Your task to perform on an android device: turn on notifications settings in the gmail app Image 0: 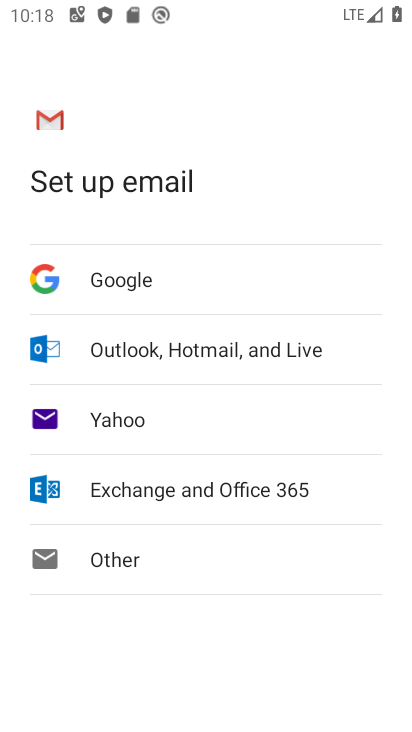
Step 0: press home button
Your task to perform on an android device: turn on notifications settings in the gmail app Image 1: 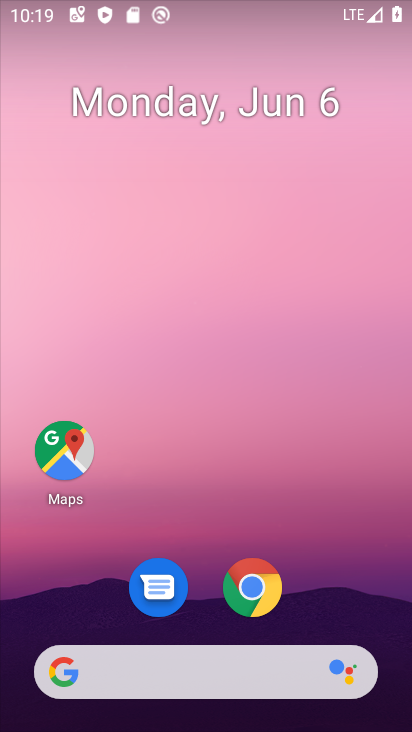
Step 1: drag from (324, 719) to (288, 73)
Your task to perform on an android device: turn on notifications settings in the gmail app Image 2: 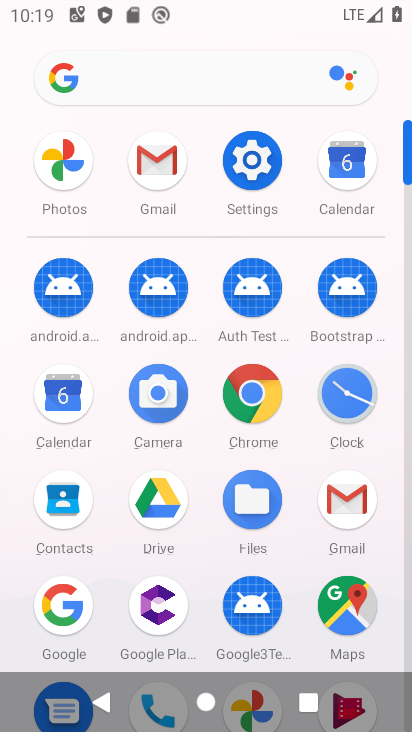
Step 2: click (331, 505)
Your task to perform on an android device: turn on notifications settings in the gmail app Image 3: 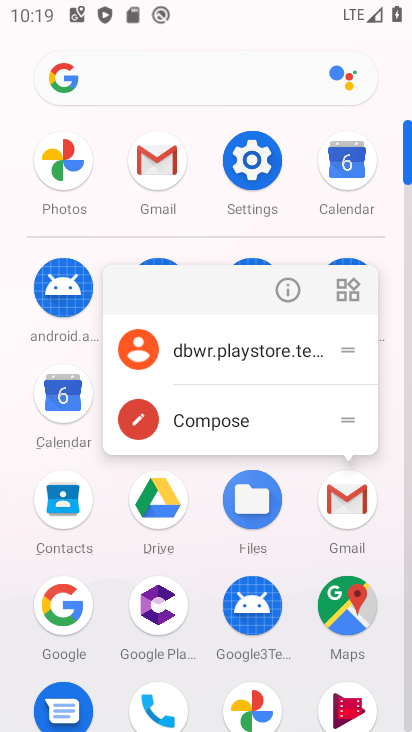
Step 3: click (289, 286)
Your task to perform on an android device: turn on notifications settings in the gmail app Image 4: 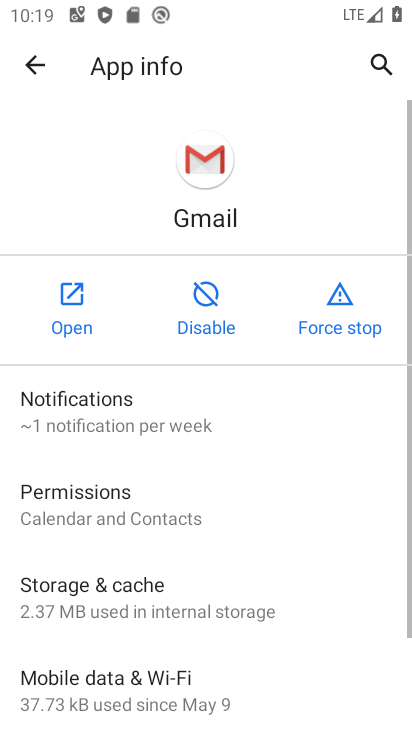
Step 4: click (130, 414)
Your task to perform on an android device: turn on notifications settings in the gmail app Image 5: 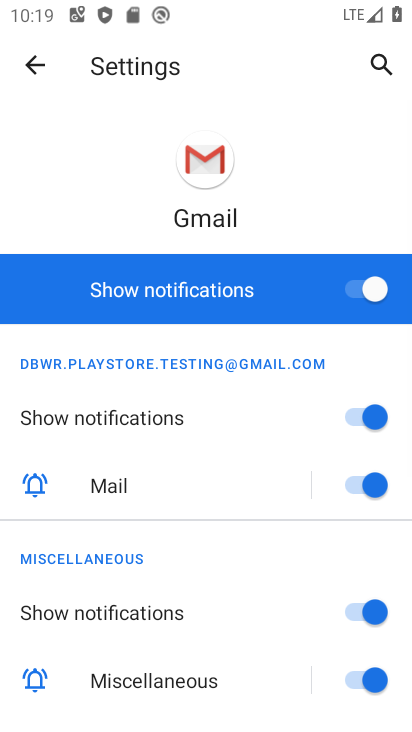
Step 5: task complete